Your task to perform on an android device: Is it going to rain today? Image 0: 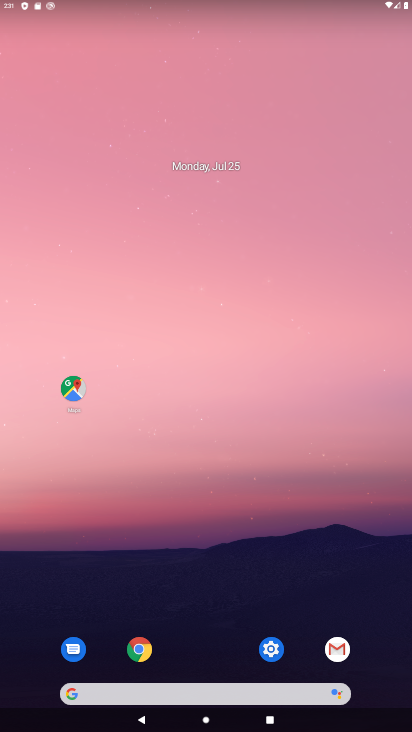
Step 0: click (194, 697)
Your task to perform on an android device: Is it going to rain today? Image 1: 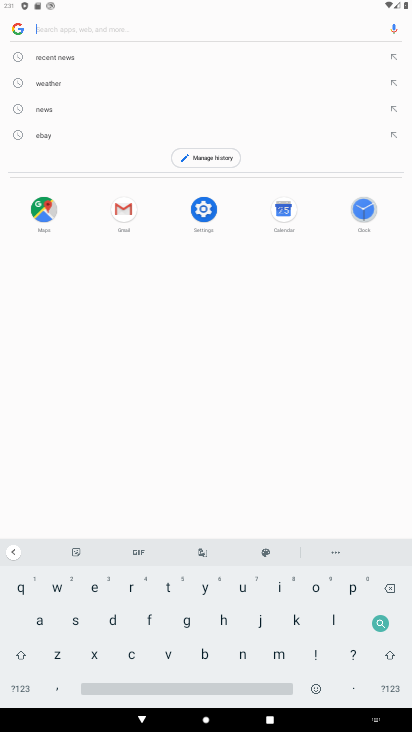
Step 1: click (128, 578)
Your task to perform on an android device: Is it going to rain today? Image 2: 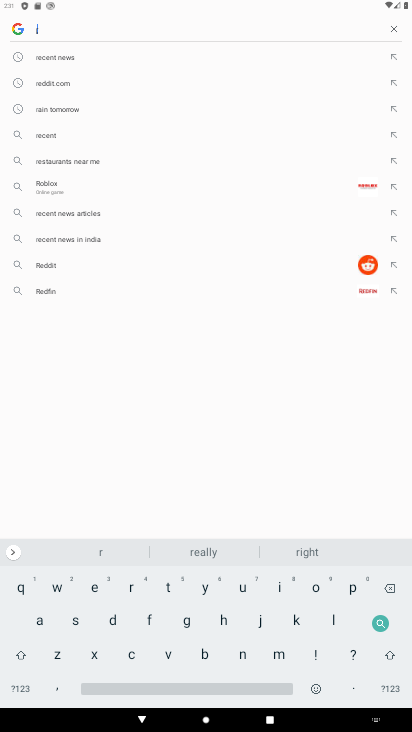
Step 2: click (31, 616)
Your task to perform on an android device: Is it going to rain today? Image 3: 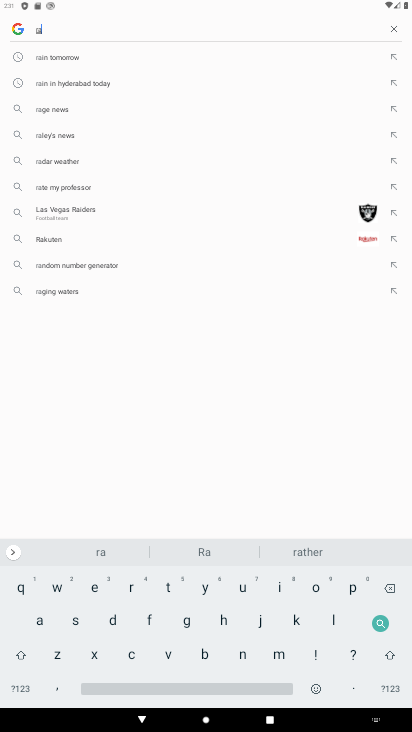
Step 3: click (54, 89)
Your task to perform on an android device: Is it going to rain today? Image 4: 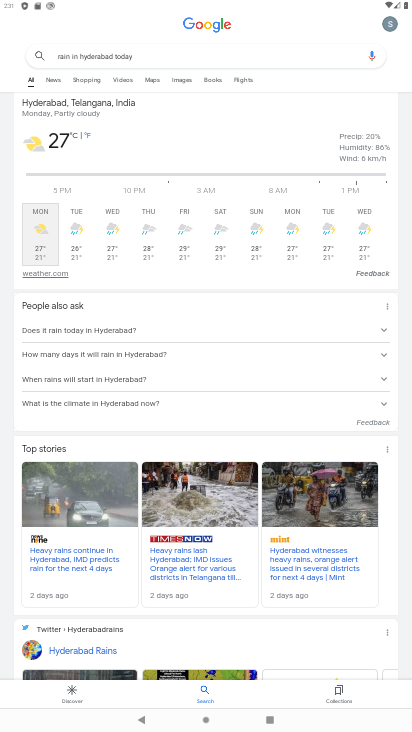
Step 4: task complete